Your task to perform on an android device: Check the news Image 0: 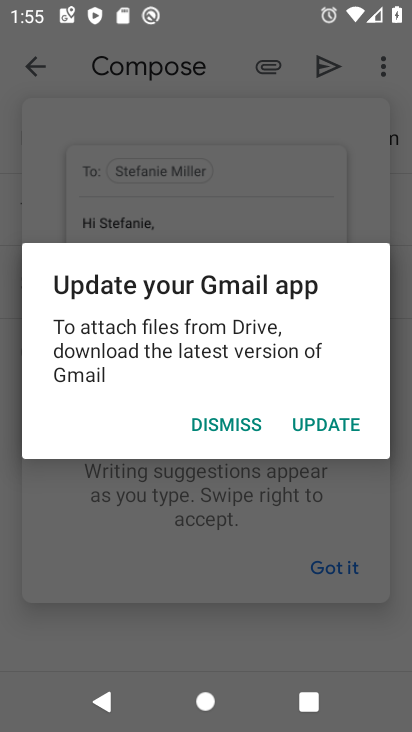
Step 0: press home button
Your task to perform on an android device: Check the news Image 1: 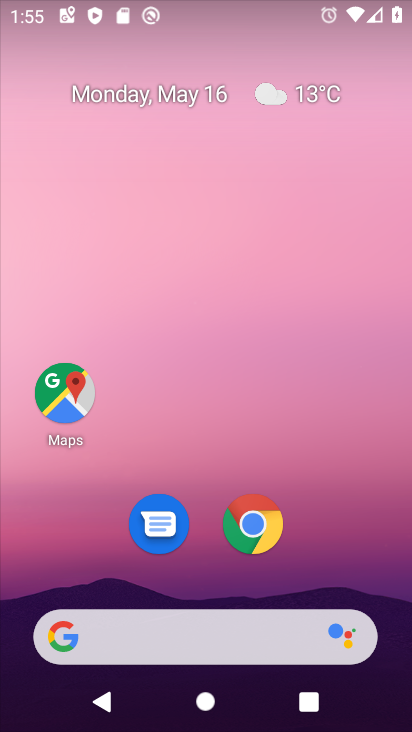
Step 1: drag from (237, 429) to (203, 36)
Your task to perform on an android device: Check the news Image 2: 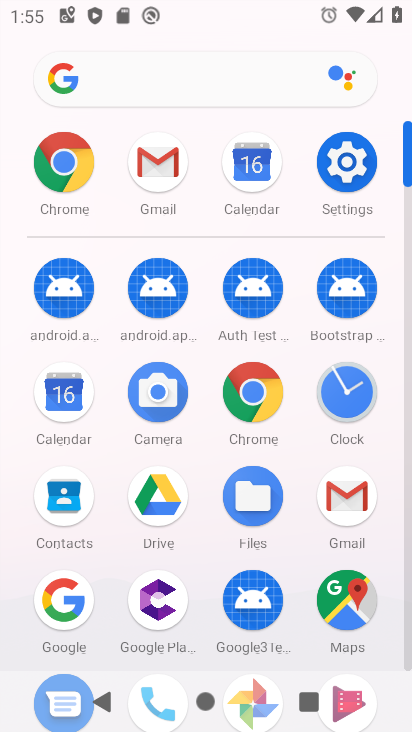
Step 2: click (65, 607)
Your task to perform on an android device: Check the news Image 3: 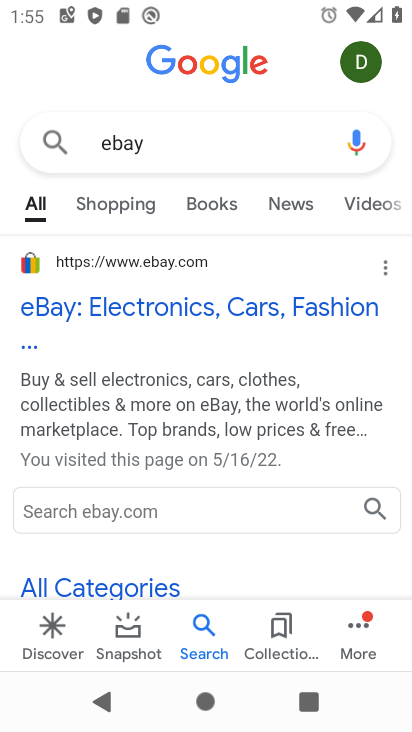
Step 3: click (191, 133)
Your task to perform on an android device: Check the news Image 4: 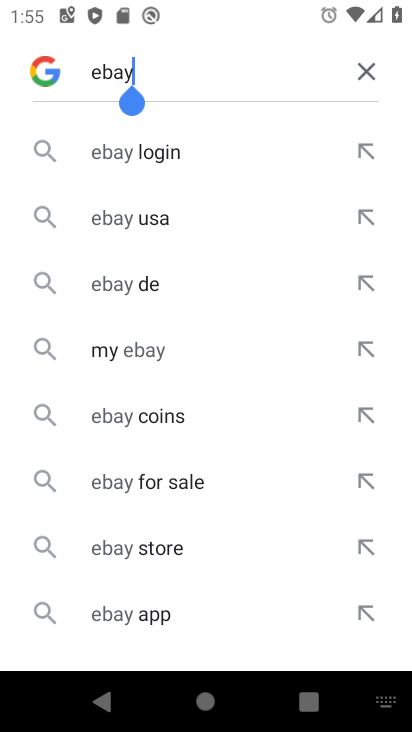
Step 4: click (364, 71)
Your task to perform on an android device: Check the news Image 5: 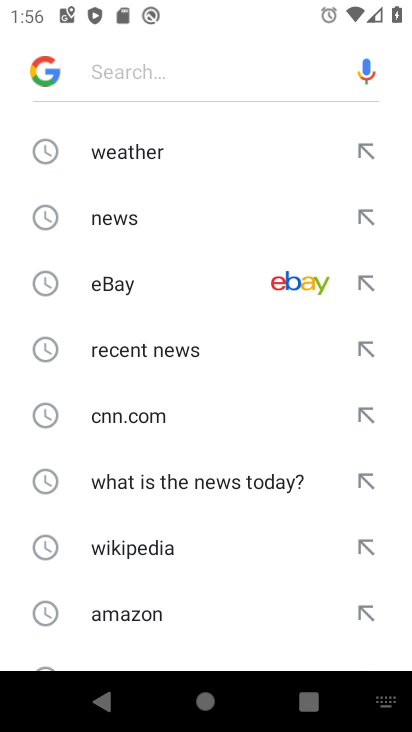
Step 5: click (116, 206)
Your task to perform on an android device: Check the news Image 6: 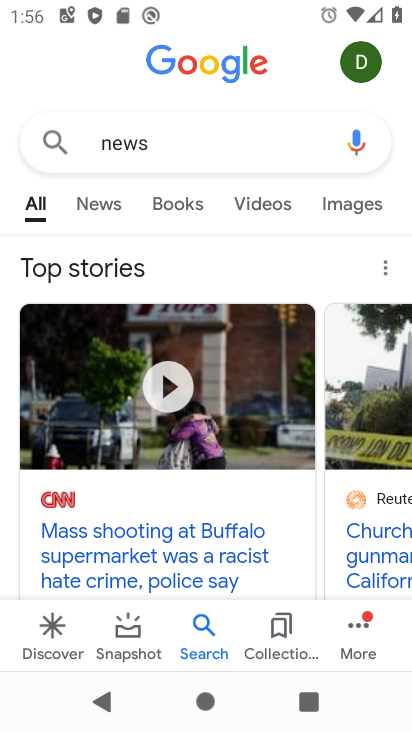
Step 6: click (101, 195)
Your task to perform on an android device: Check the news Image 7: 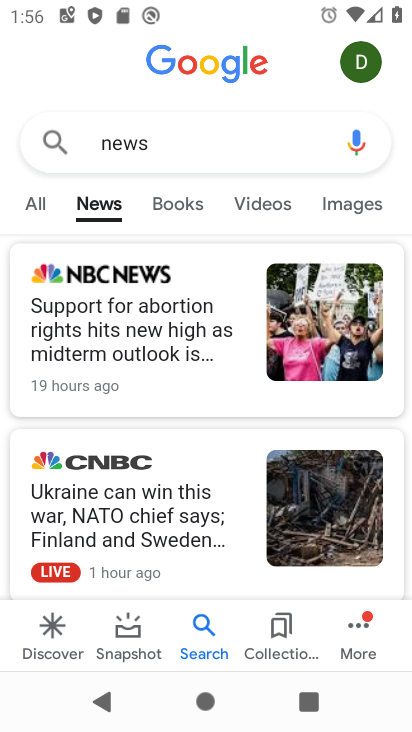
Step 7: task complete